Your task to perform on an android device: open app "Duolingo: language lessons" (install if not already installed), go to login, and select forgot password Image 0: 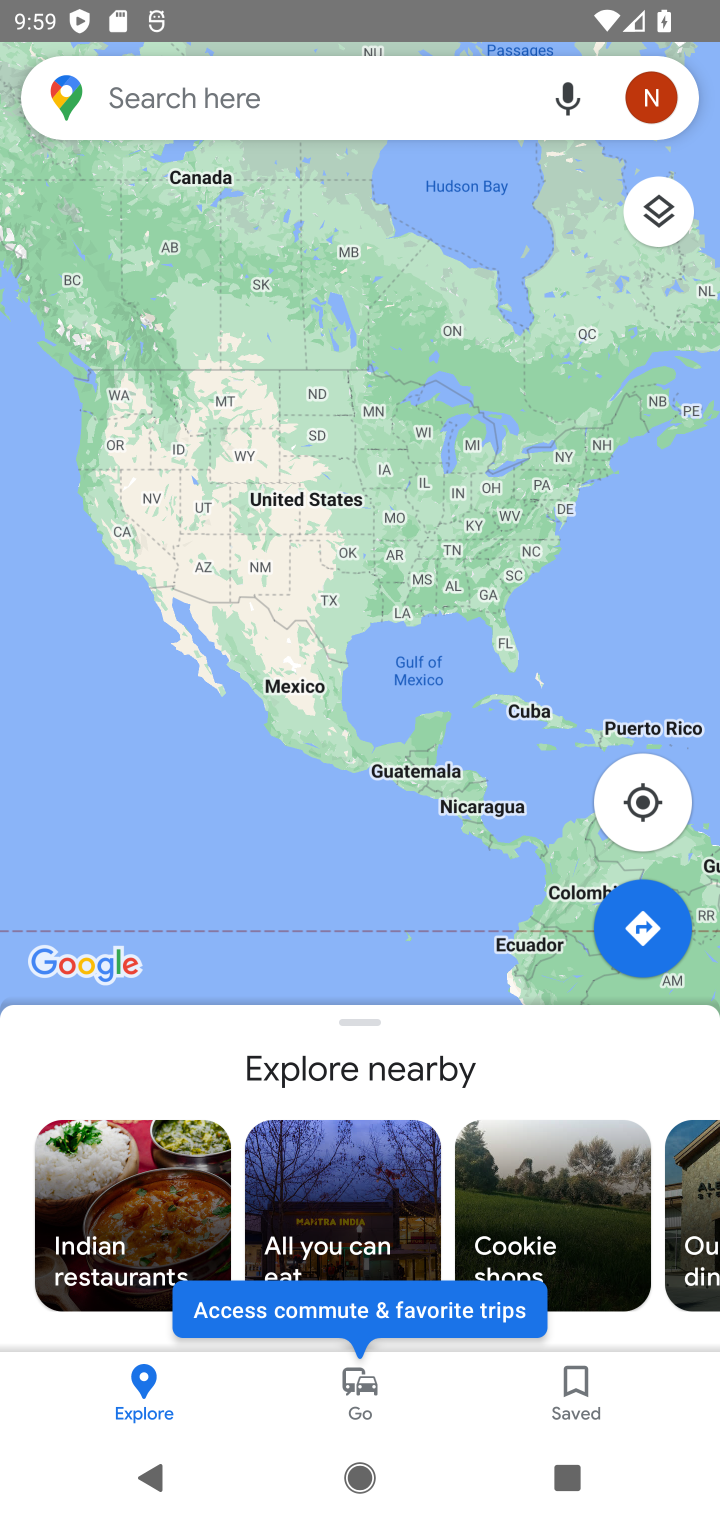
Step 0: press home button
Your task to perform on an android device: open app "Duolingo: language lessons" (install if not already installed), go to login, and select forgot password Image 1: 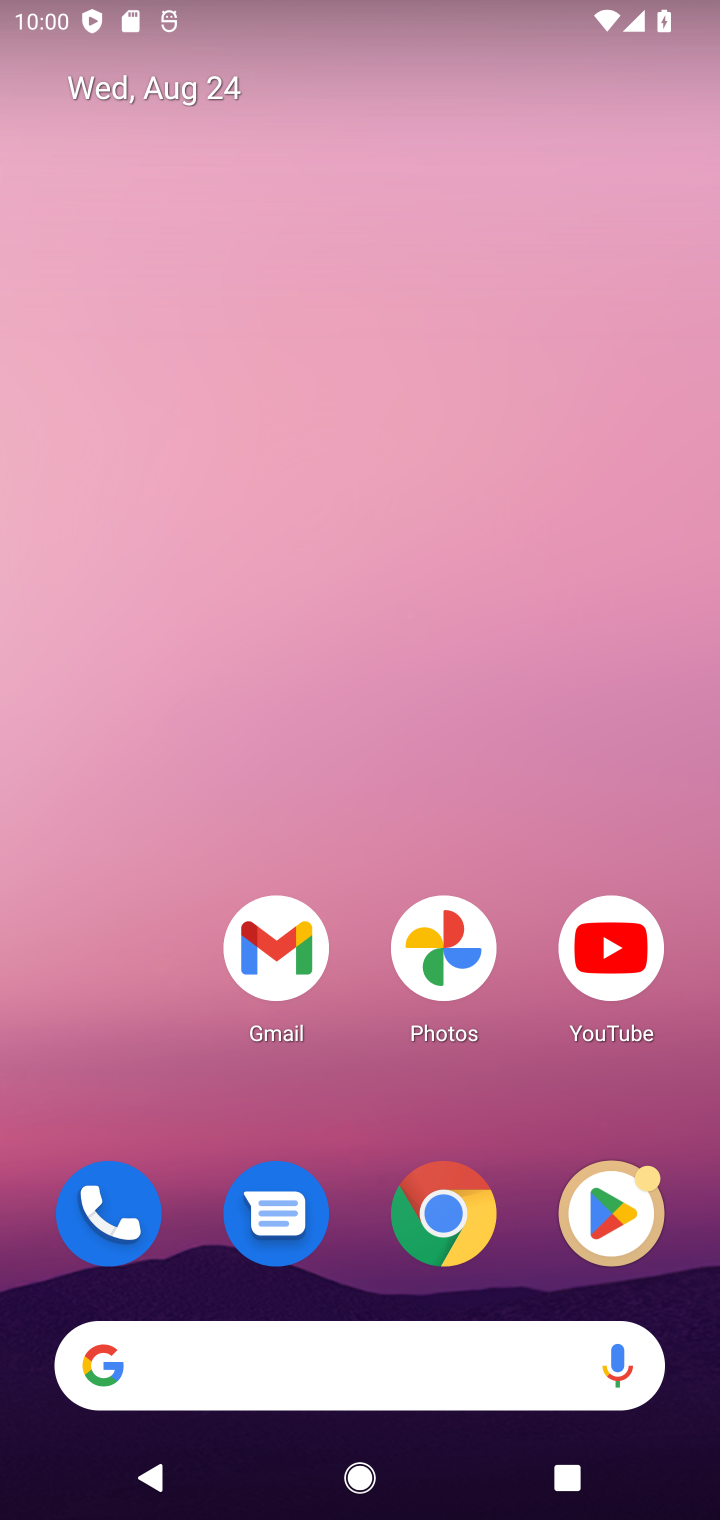
Step 1: click (588, 1208)
Your task to perform on an android device: open app "Duolingo: language lessons" (install if not already installed), go to login, and select forgot password Image 2: 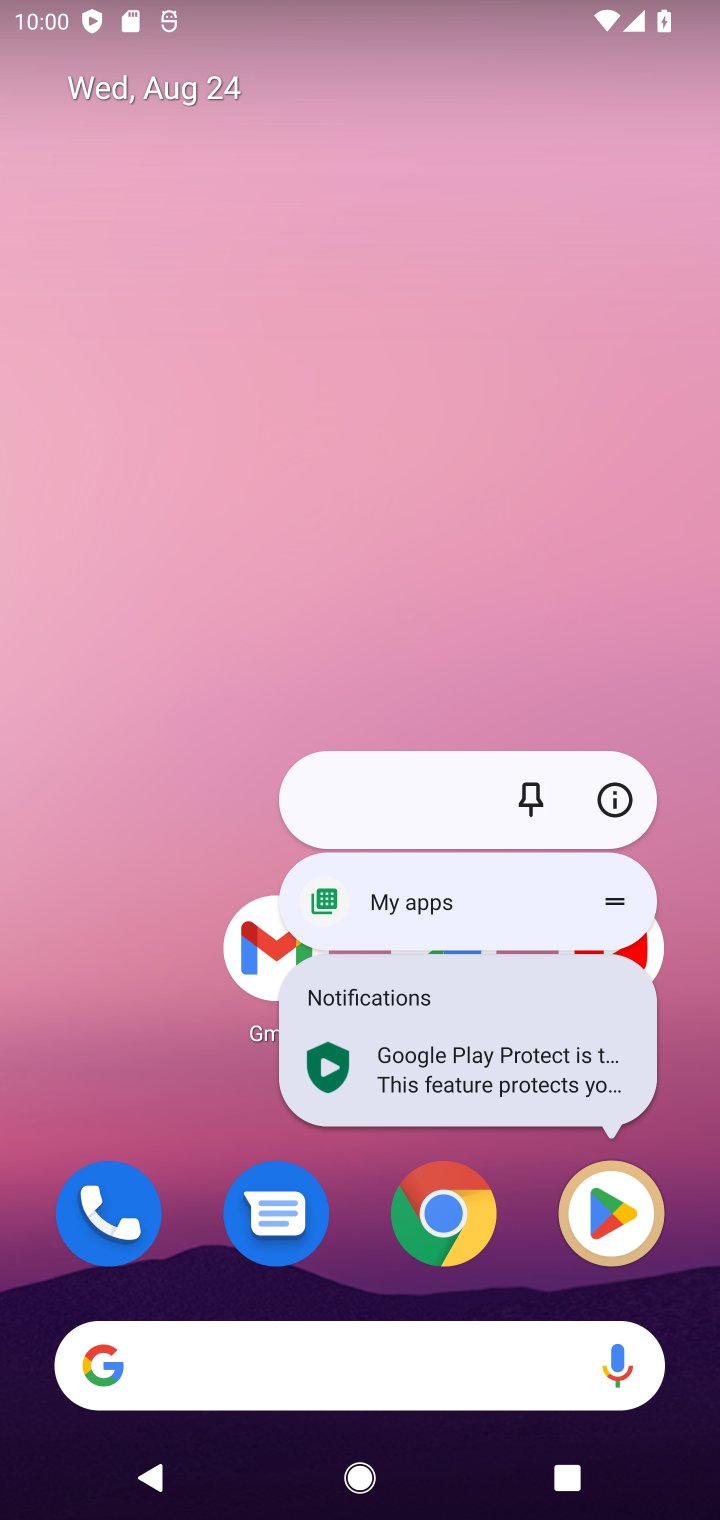
Step 2: click (620, 1220)
Your task to perform on an android device: open app "Duolingo: language lessons" (install if not already installed), go to login, and select forgot password Image 3: 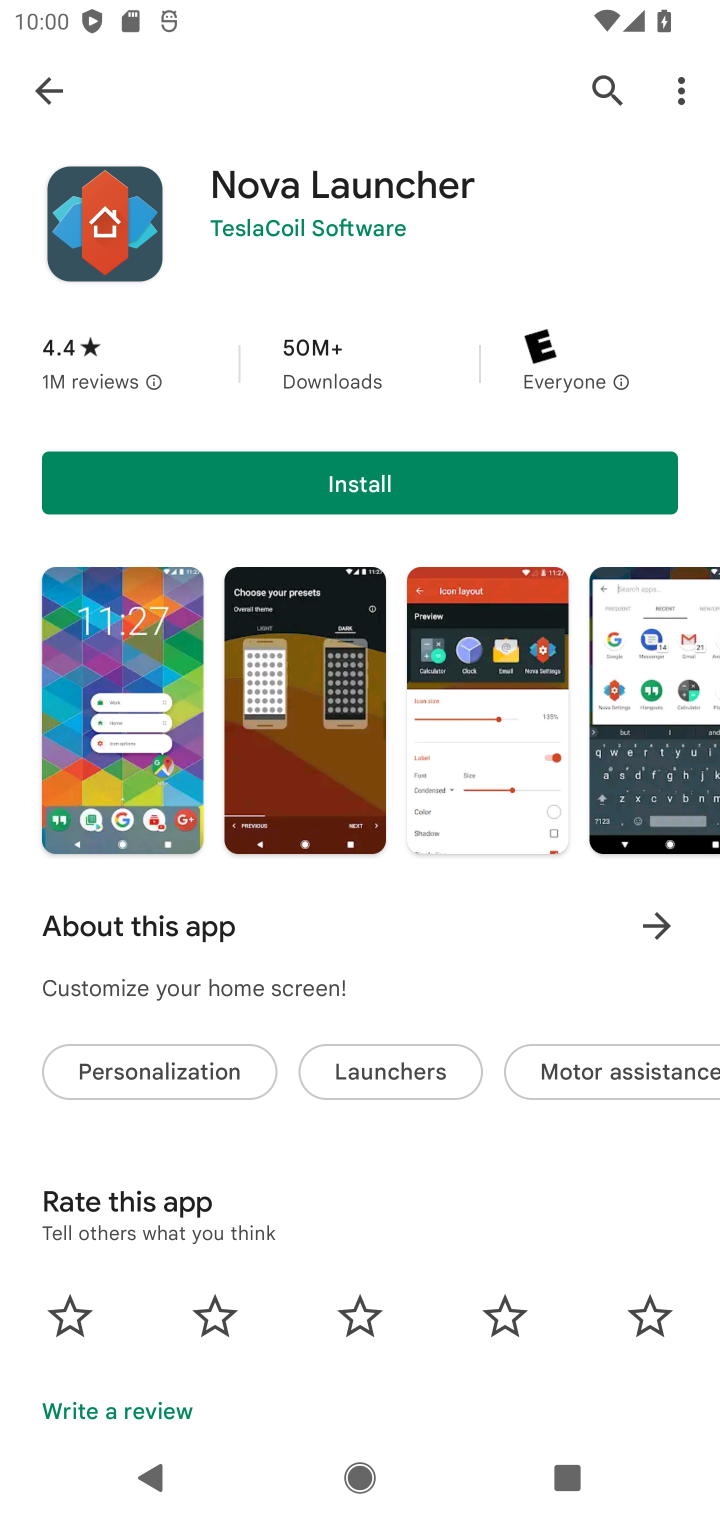
Step 3: click (51, 98)
Your task to perform on an android device: open app "Duolingo: language lessons" (install if not already installed), go to login, and select forgot password Image 4: 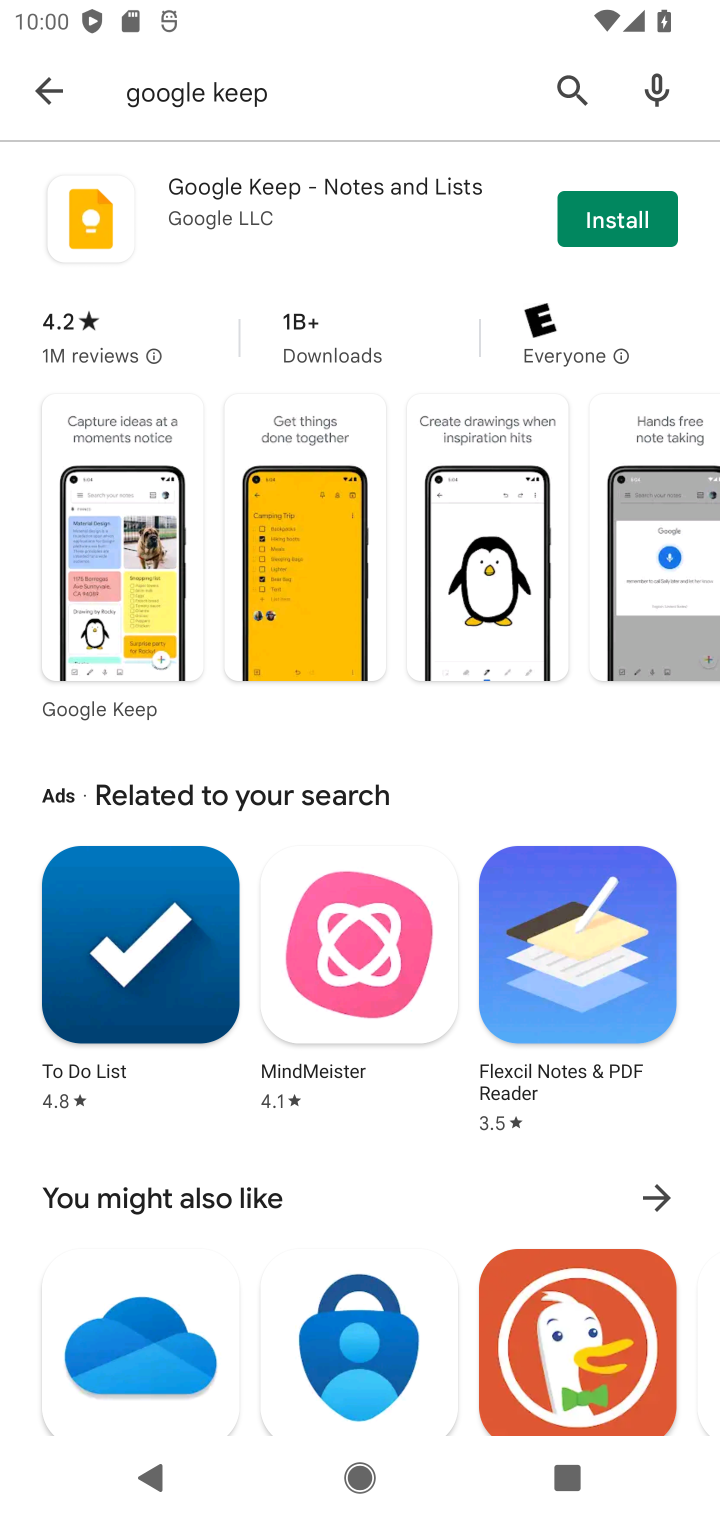
Step 4: click (244, 88)
Your task to perform on an android device: open app "Duolingo: language lessons" (install if not already installed), go to login, and select forgot password Image 5: 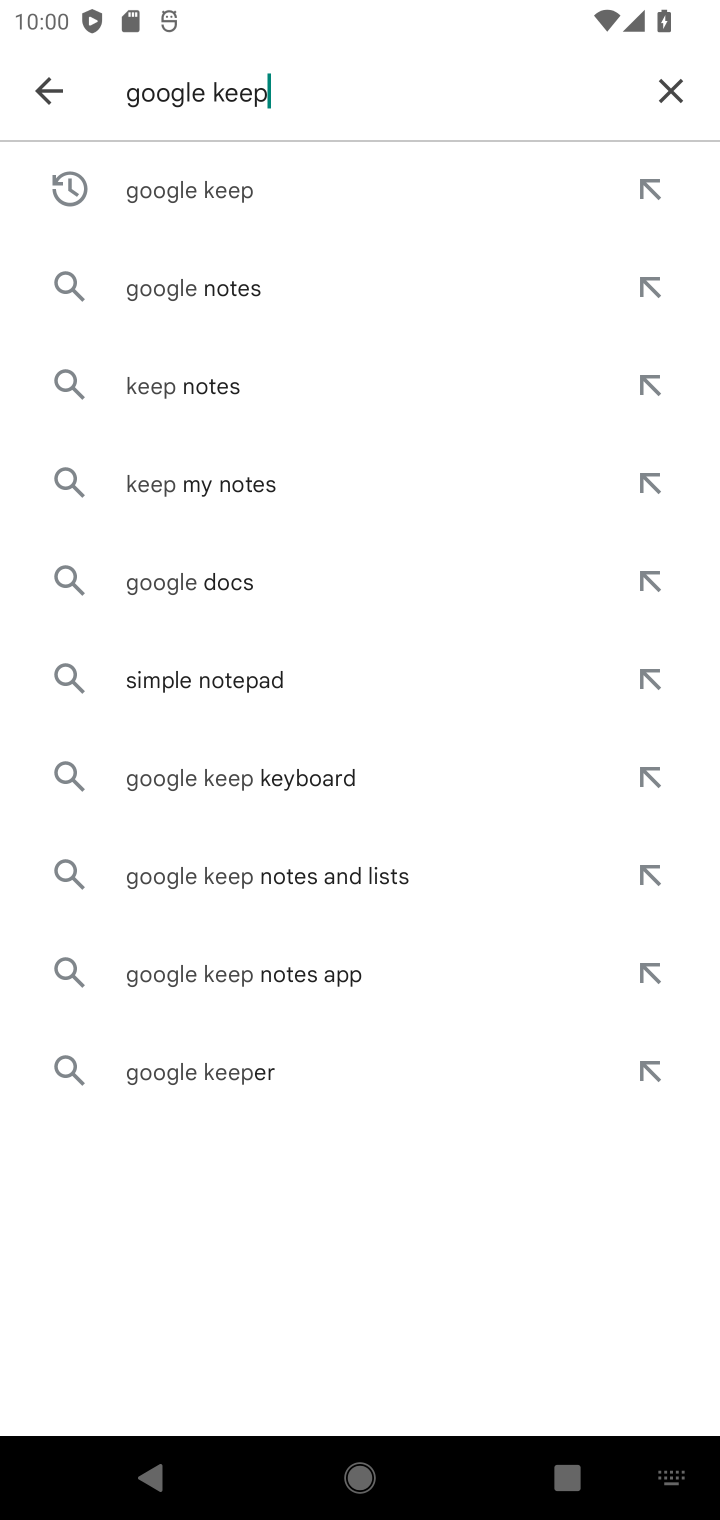
Step 5: click (655, 102)
Your task to perform on an android device: open app "Duolingo: language lessons" (install if not already installed), go to login, and select forgot password Image 6: 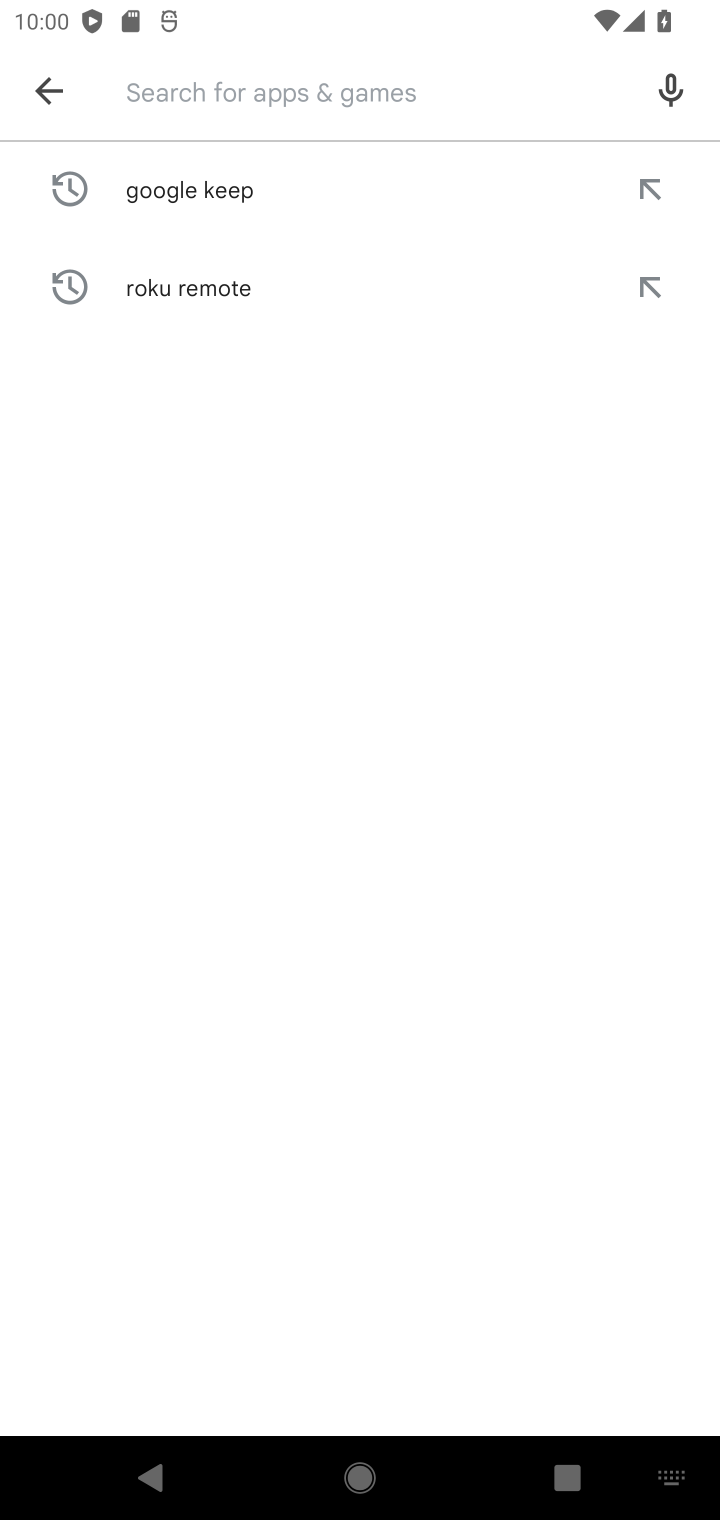
Step 6: type "duolingo"
Your task to perform on an android device: open app "Duolingo: language lessons" (install if not already installed), go to login, and select forgot password Image 7: 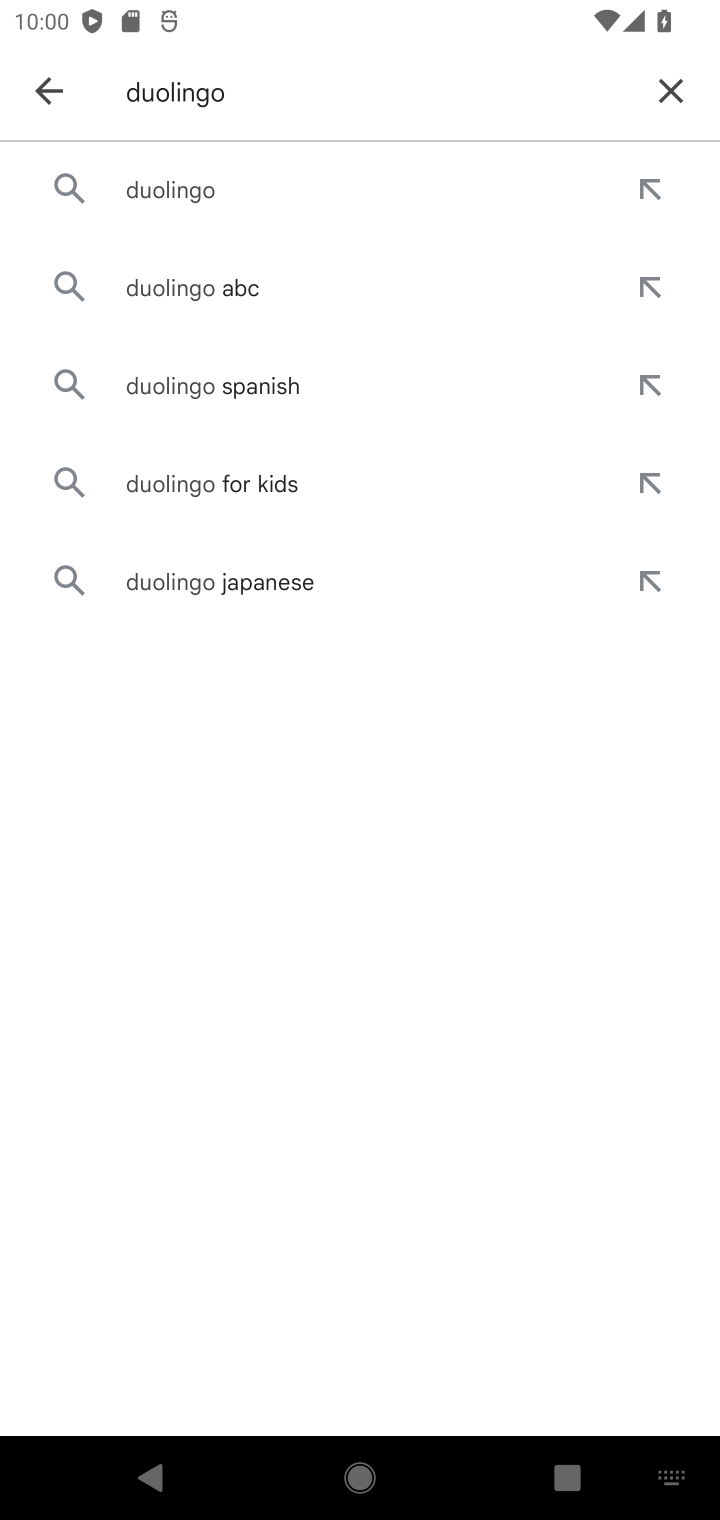
Step 7: click (213, 188)
Your task to perform on an android device: open app "Duolingo: language lessons" (install if not already installed), go to login, and select forgot password Image 8: 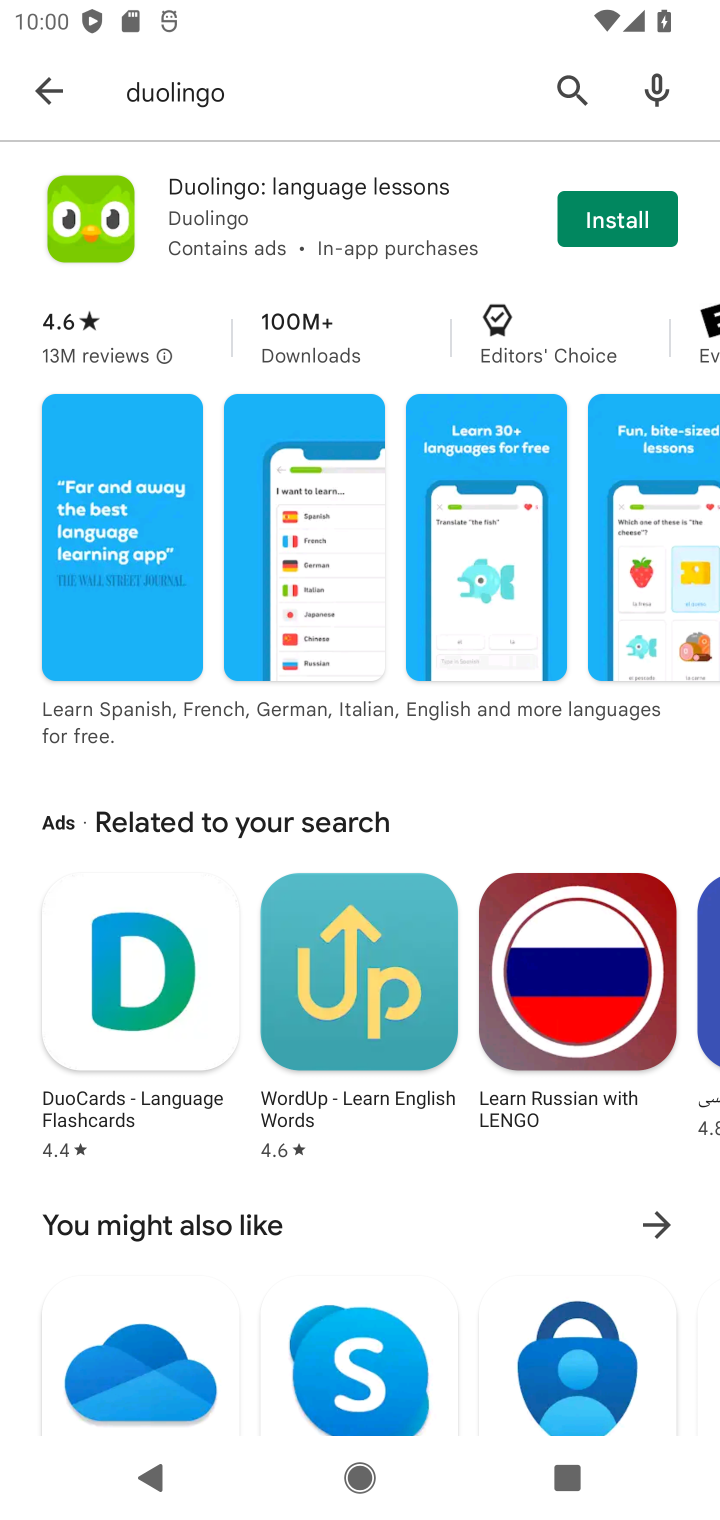
Step 8: click (617, 229)
Your task to perform on an android device: open app "Duolingo: language lessons" (install if not already installed), go to login, and select forgot password Image 9: 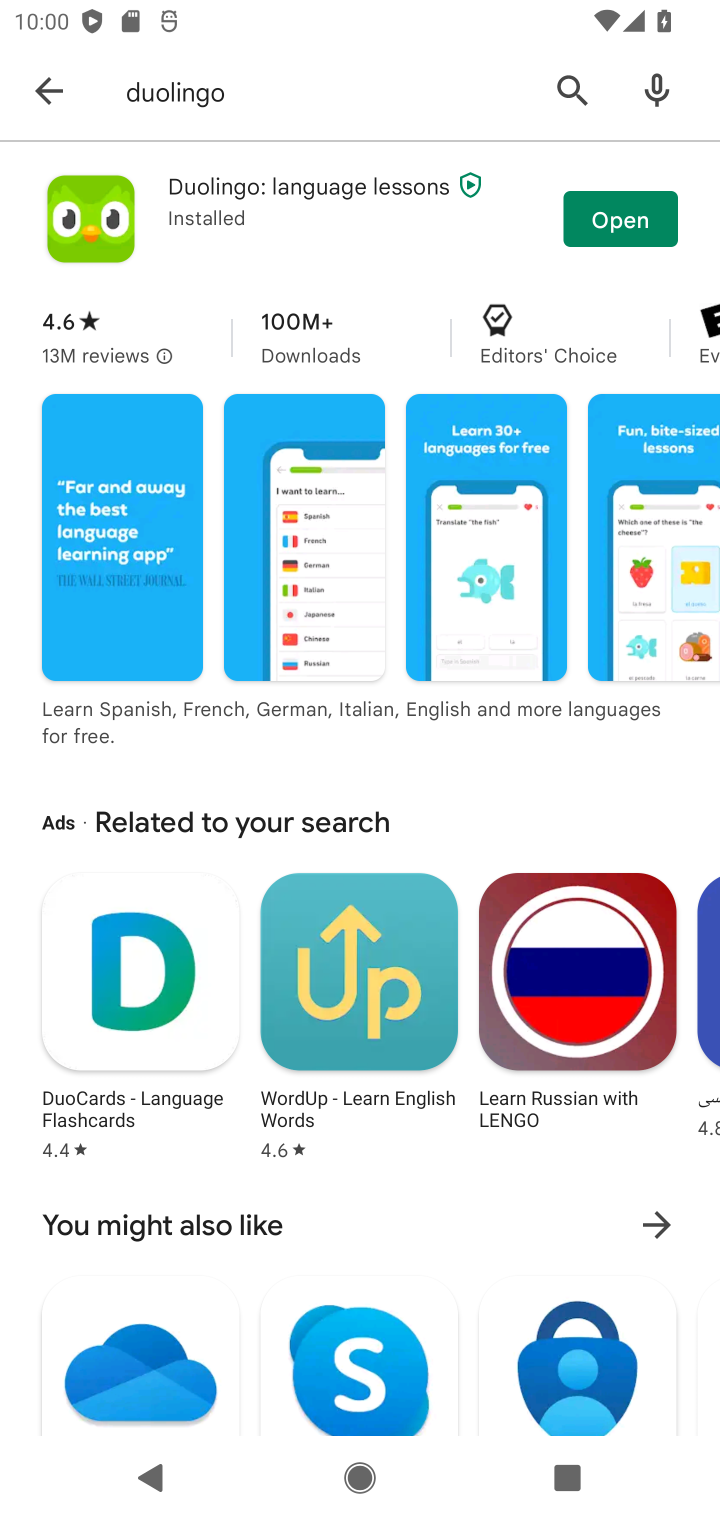
Step 9: click (609, 222)
Your task to perform on an android device: open app "Duolingo: language lessons" (install if not already installed), go to login, and select forgot password Image 10: 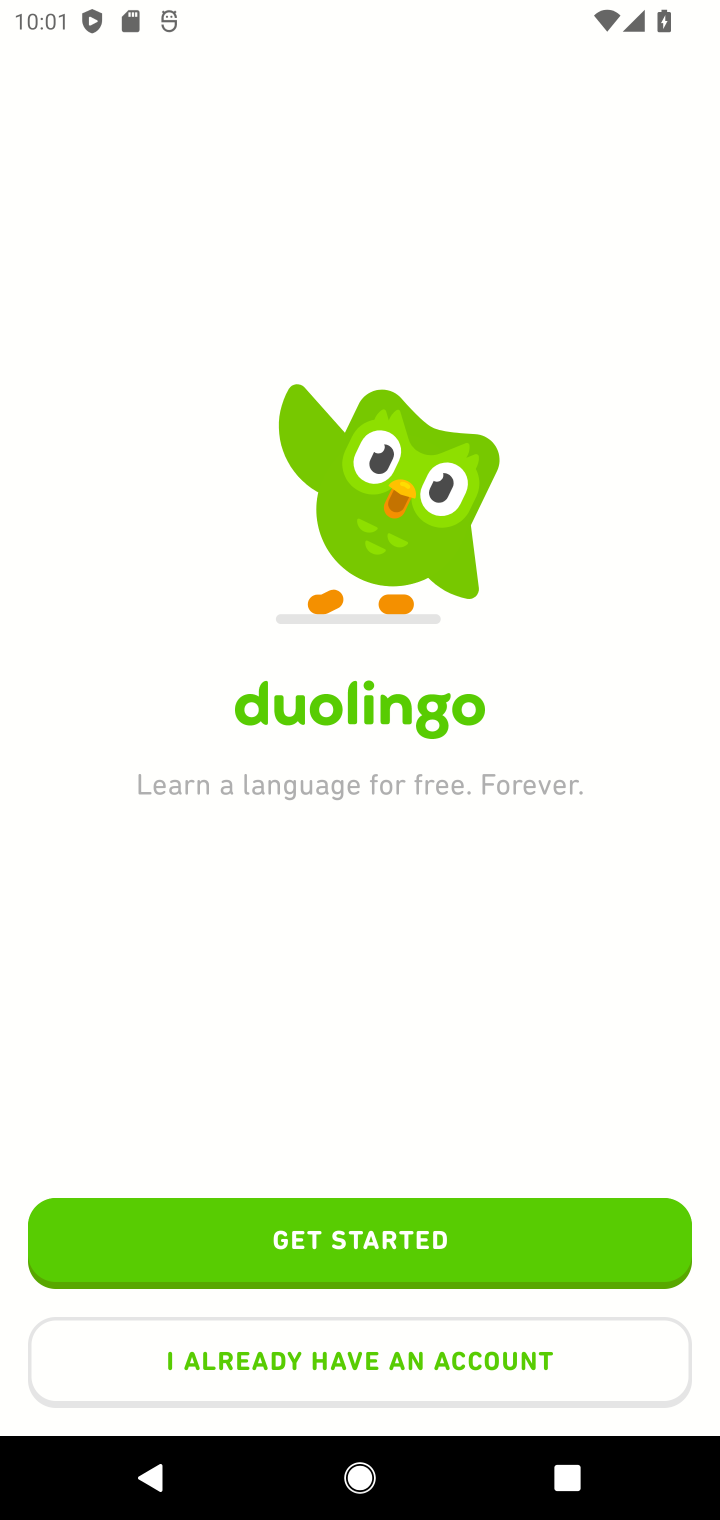
Step 10: click (400, 1357)
Your task to perform on an android device: open app "Duolingo: language lessons" (install if not already installed), go to login, and select forgot password Image 11: 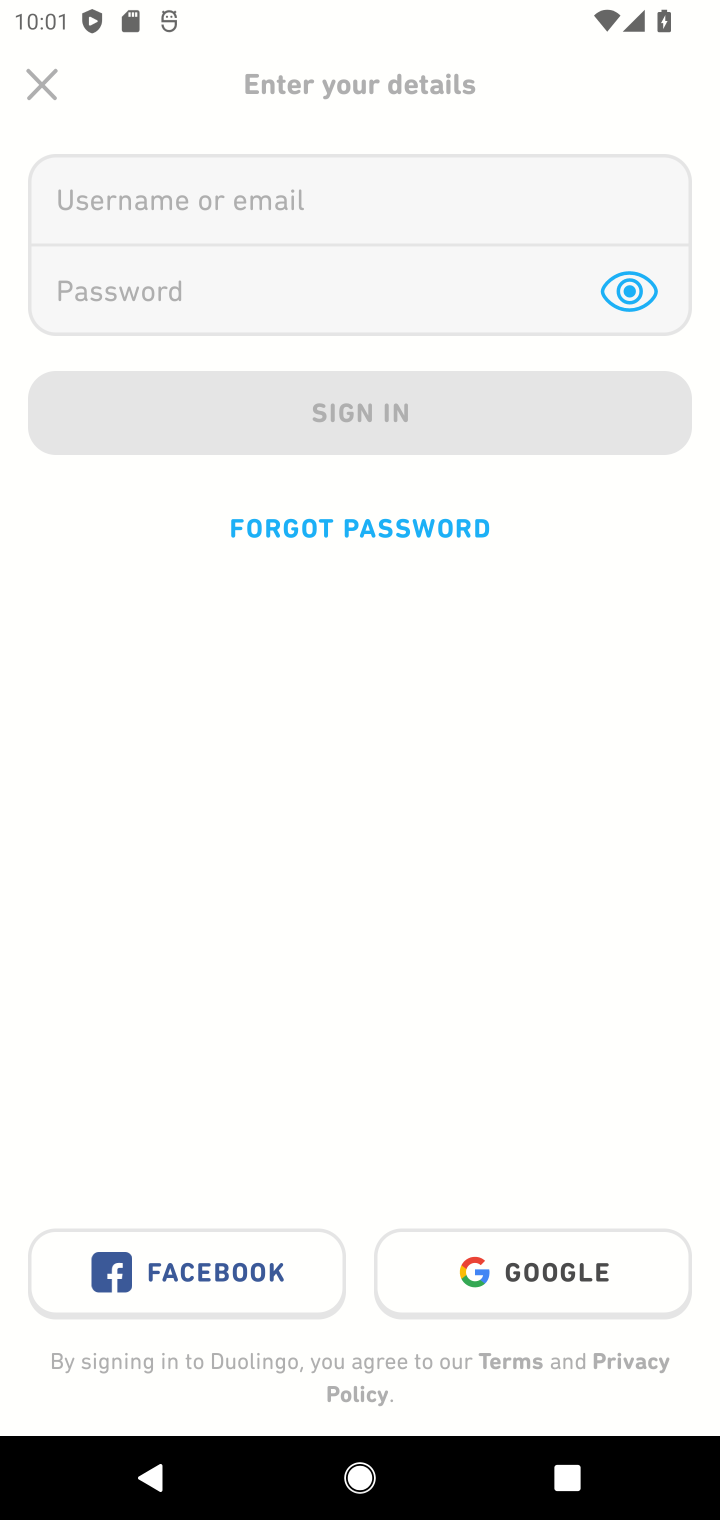
Step 11: click (369, 517)
Your task to perform on an android device: open app "Duolingo: language lessons" (install if not already installed), go to login, and select forgot password Image 12: 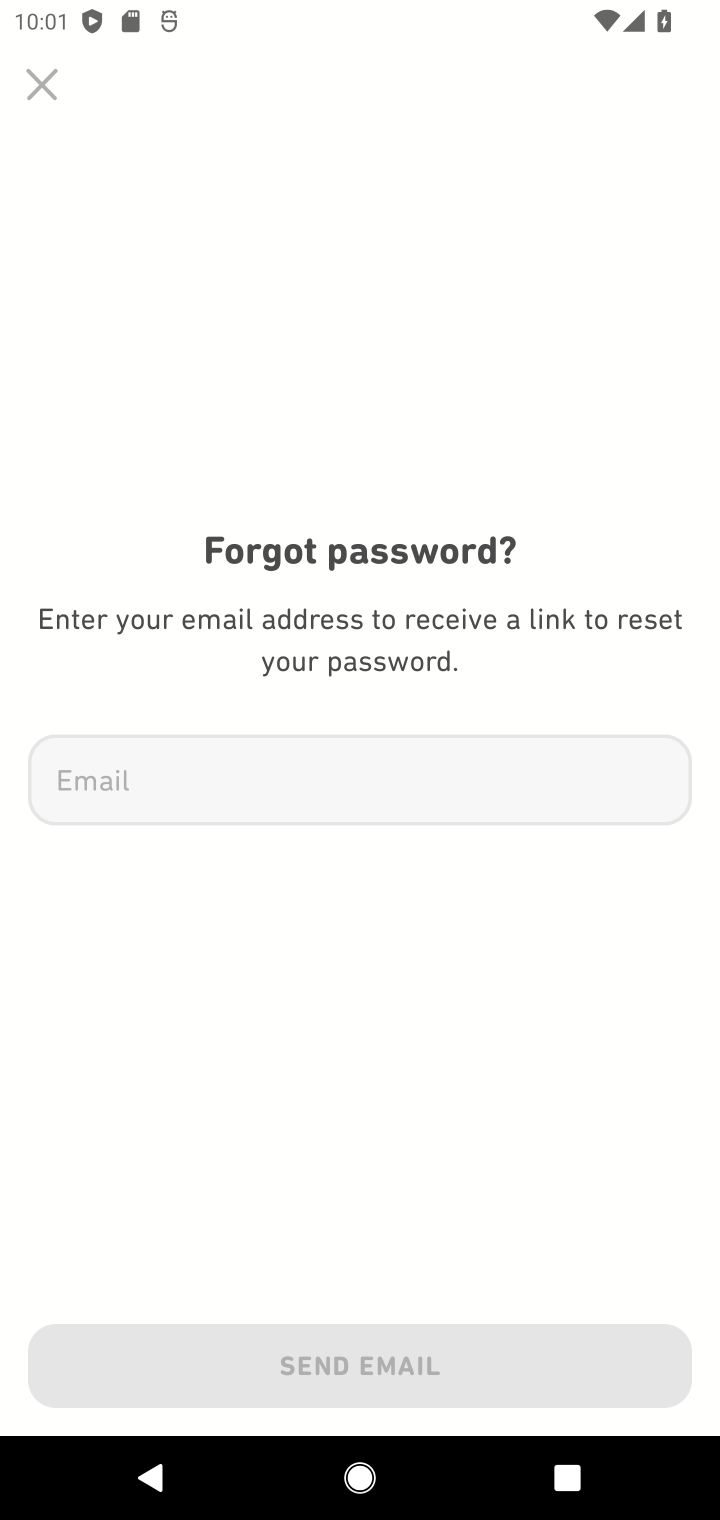
Step 12: task complete